Your task to perform on an android device: Show me productivity apps on the Play Store Image 0: 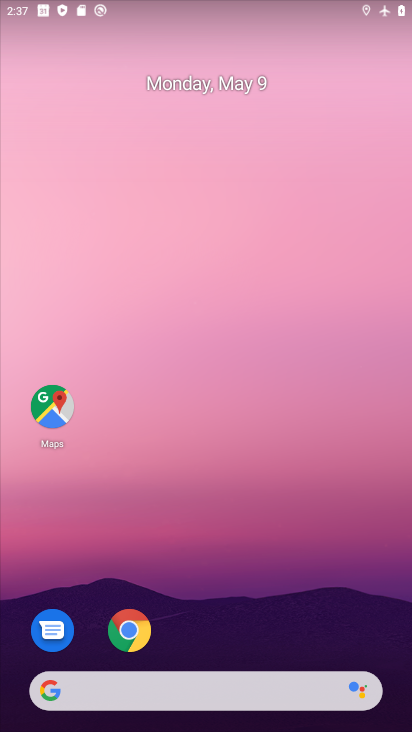
Step 0: drag from (248, 640) to (189, 325)
Your task to perform on an android device: Show me productivity apps on the Play Store Image 1: 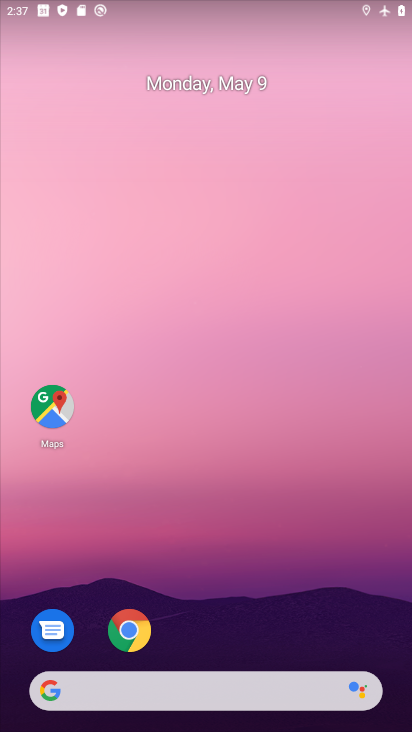
Step 1: drag from (233, 615) to (174, 300)
Your task to perform on an android device: Show me productivity apps on the Play Store Image 2: 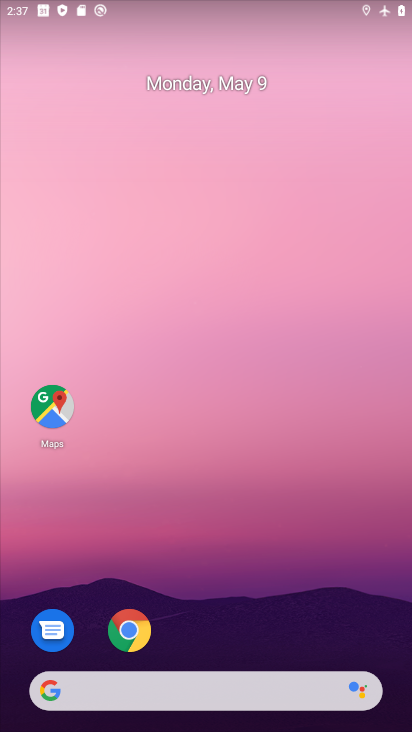
Step 2: drag from (212, 654) to (103, 198)
Your task to perform on an android device: Show me productivity apps on the Play Store Image 3: 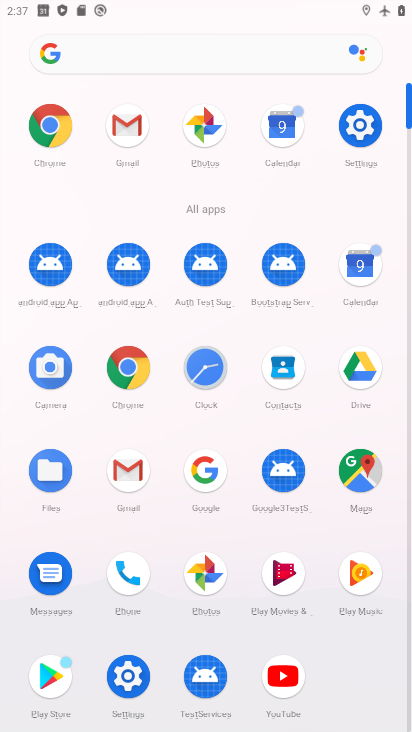
Step 3: click (59, 675)
Your task to perform on an android device: Show me productivity apps on the Play Store Image 4: 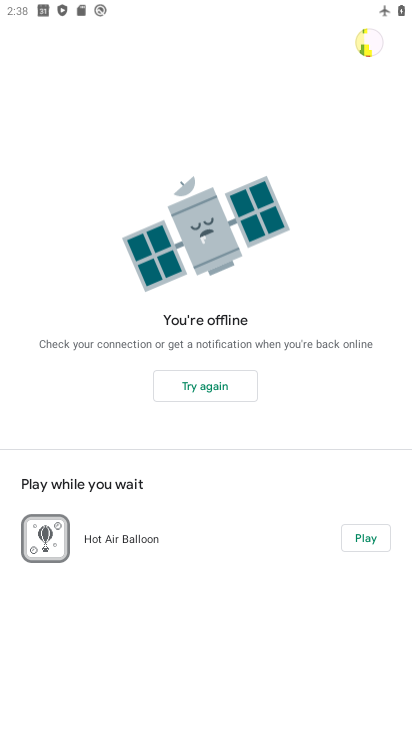
Step 4: task complete